Your task to perform on an android device: check google app version Image 0: 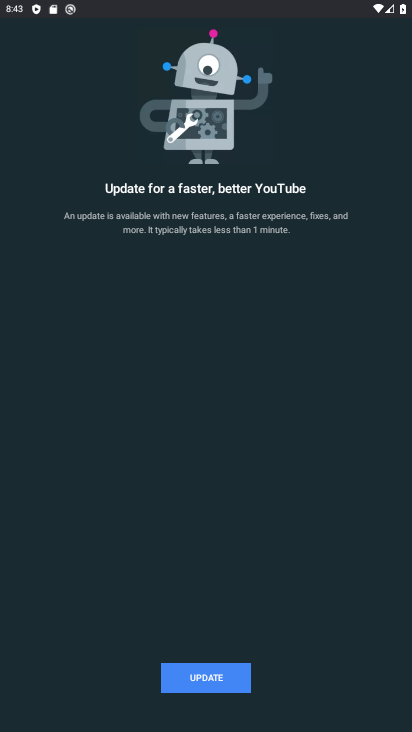
Step 0: drag from (257, 669) to (202, 238)
Your task to perform on an android device: check google app version Image 1: 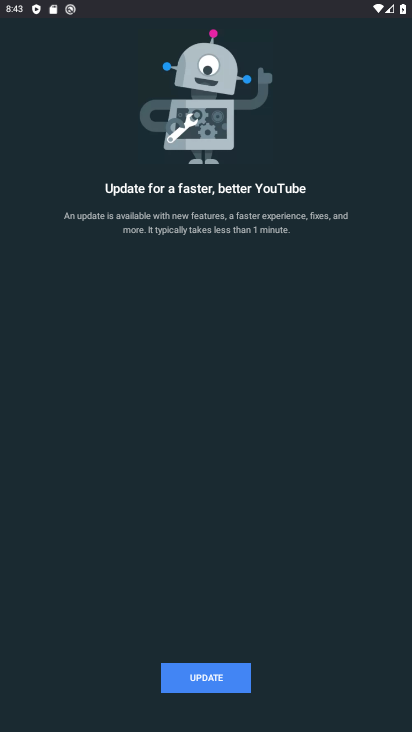
Step 1: press back button
Your task to perform on an android device: check google app version Image 2: 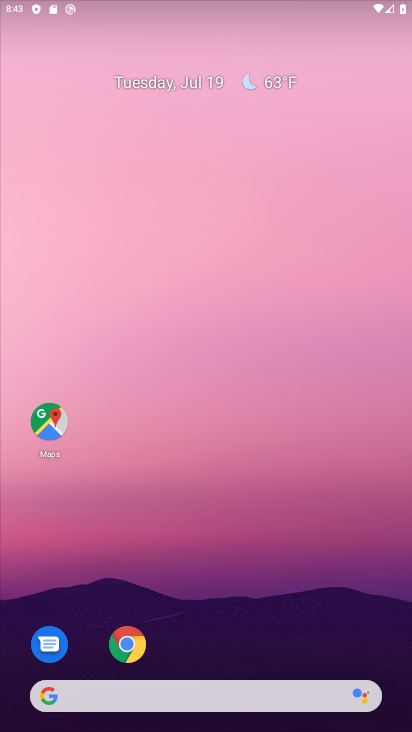
Step 2: drag from (171, 612) to (170, 189)
Your task to perform on an android device: check google app version Image 3: 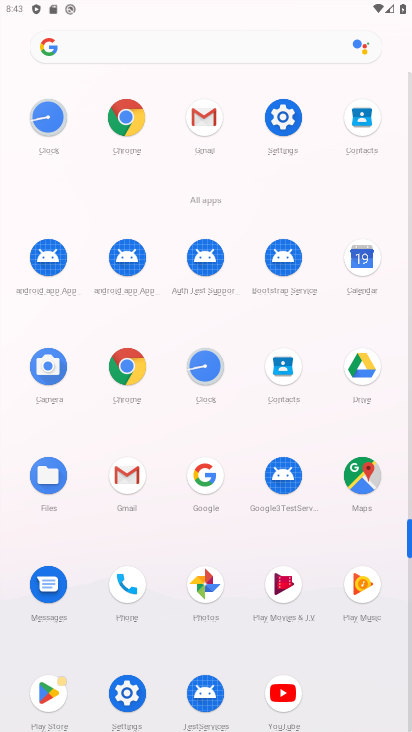
Step 3: click (204, 480)
Your task to perform on an android device: check google app version Image 4: 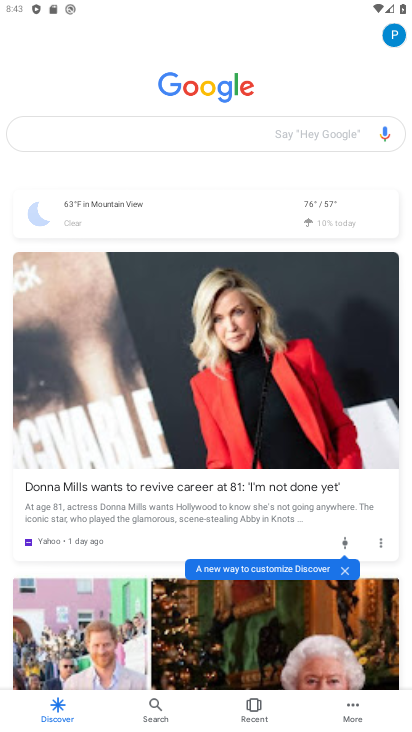
Step 4: click (353, 709)
Your task to perform on an android device: check google app version Image 5: 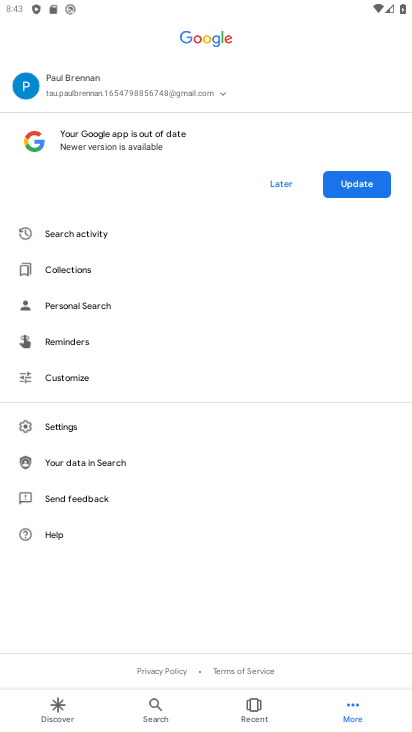
Step 5: click (51, 419)
Your task to perform on an android device: check google app version Image 6: 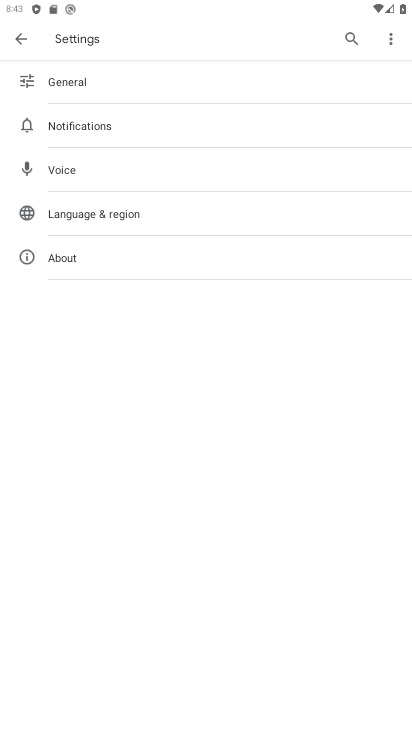
Step 6: click (82, 74)
Your task to perform on an android device: check google app version Image 7: 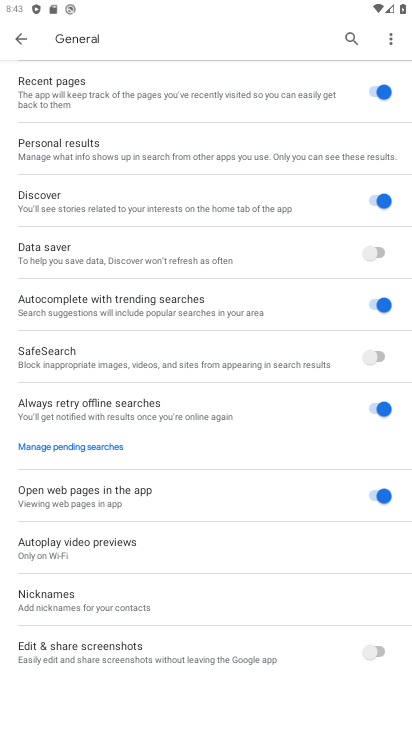
Step 7: click (25, 38)
Your task to perform on an android device: check google app version Image 8: 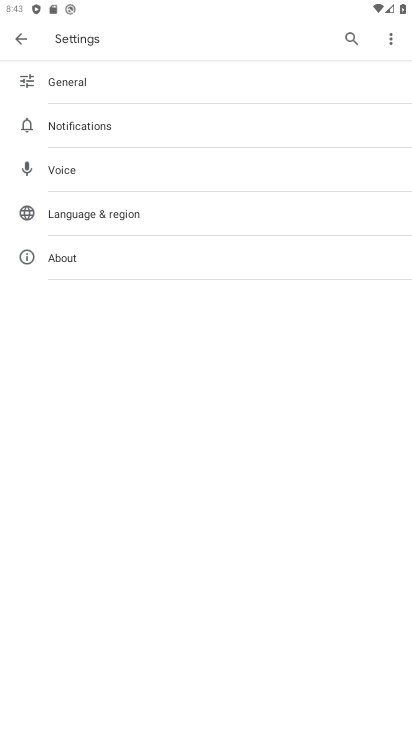
Step 8: click (74, 261)
Your task to perform on an android device: check google app version Image 9: 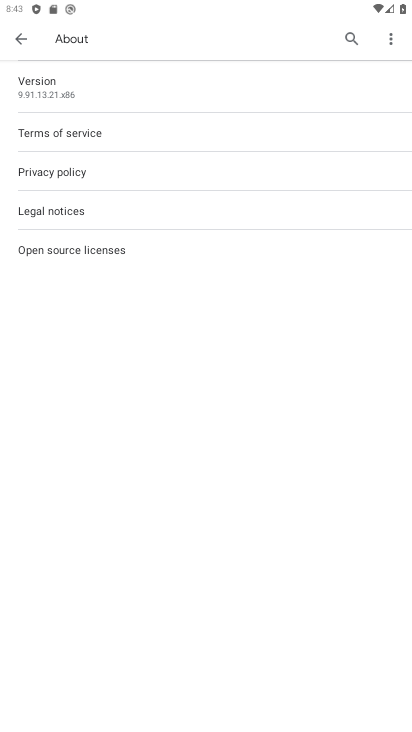
Step 9: click (78, 73)
Your task to perform on an android device: check google app version Image 10: 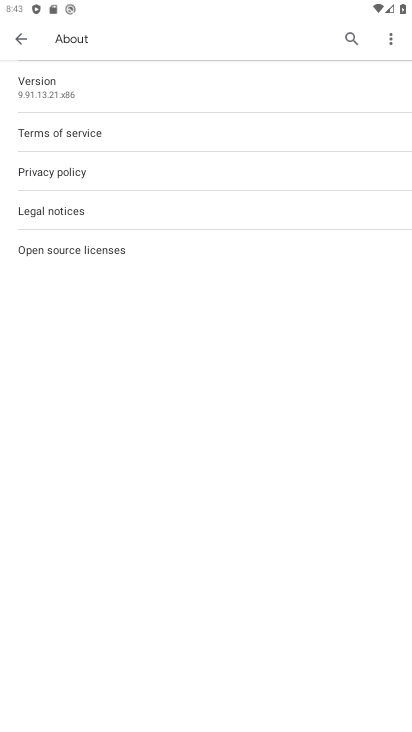
Step 10: task complete